Your task to perform on an android device: Open Yahoo.com Image 0: 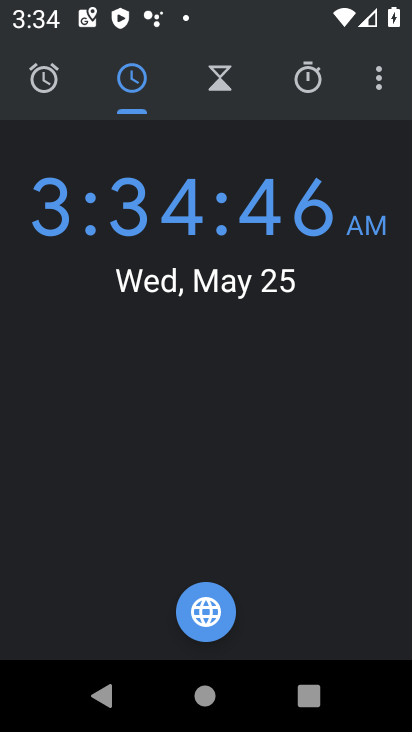
Step 0: drag from (181, 585) to (207, 298)
Your task to perform on an android device: Open Yahoo.com Image 1: 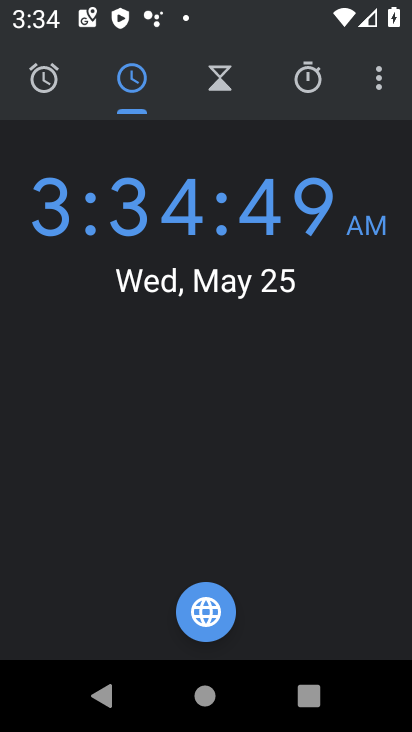
Step 1: press home button
Your task to perform on an android device: Open Yahoo.com Image 2: 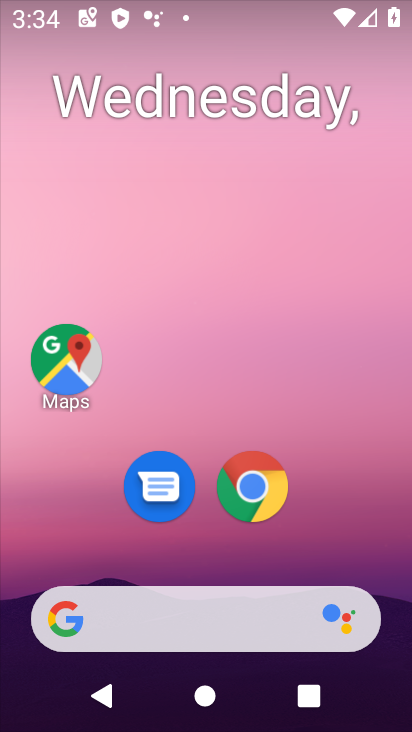
Step 2: click (275, 483)
Your task to perform on an android device: Open Yahoo.com Image 3: 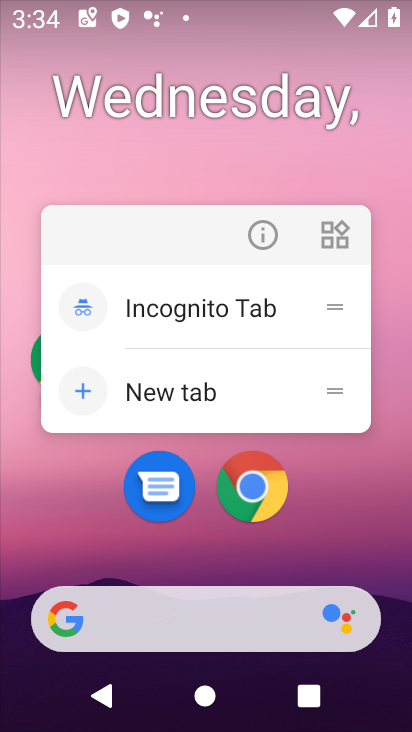
Step 3: click (253, 496)
Your task to perform on an android device: Open Yahoo.com Image 4: 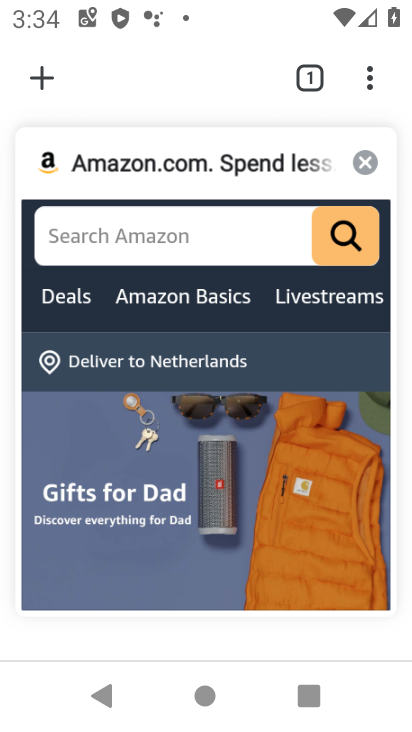
Step 4: click (42, 85)
Your task to perform on an android device: Open Yahoo.com Image 5: 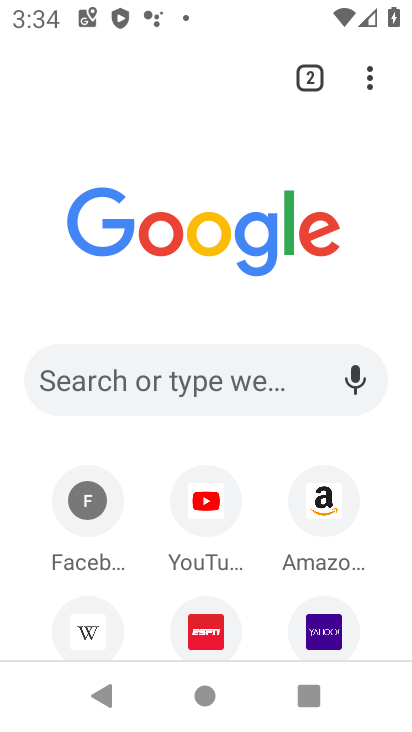
Step 5: click (318, 627)
Your task to perform on an android device: Open Yahoo.com Image 6: 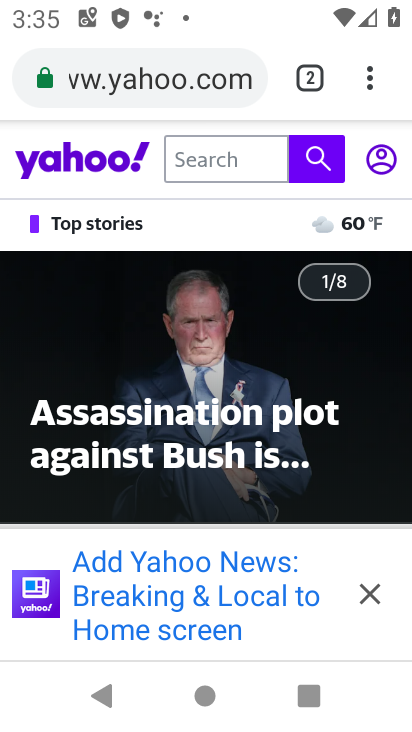
Step 6: task complete